Your task to perform on an android device: manage bookmarks in the chrome app Image 0: 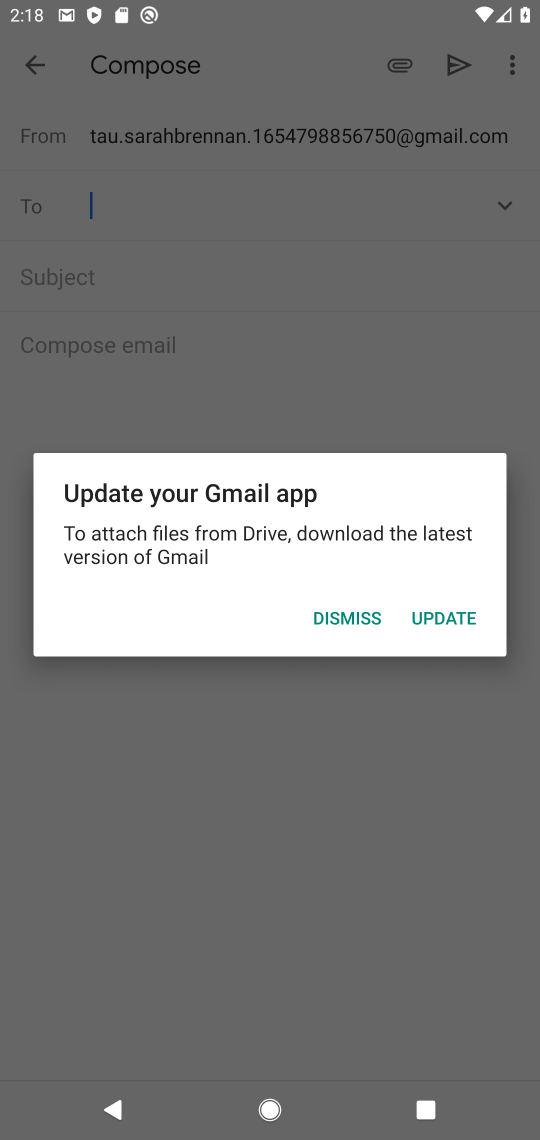
Step 0: press home button
Your task to perform on an android device: manage bookmarks in the chrome app Image 1: 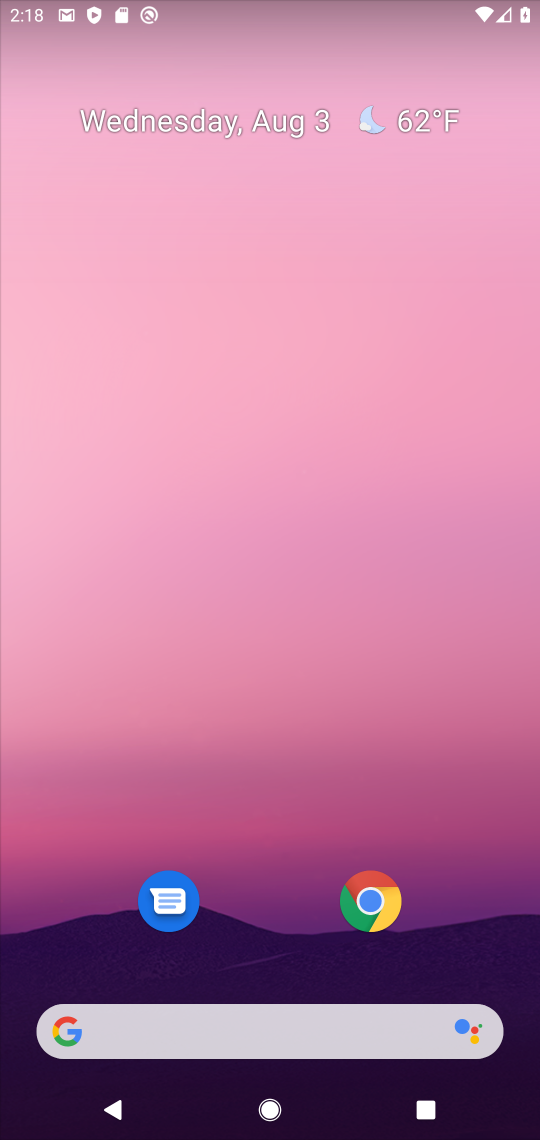
Step 1: click (362, 896)
Your task to perform on an android device: manage bookmarks in the chrome app Image 2: 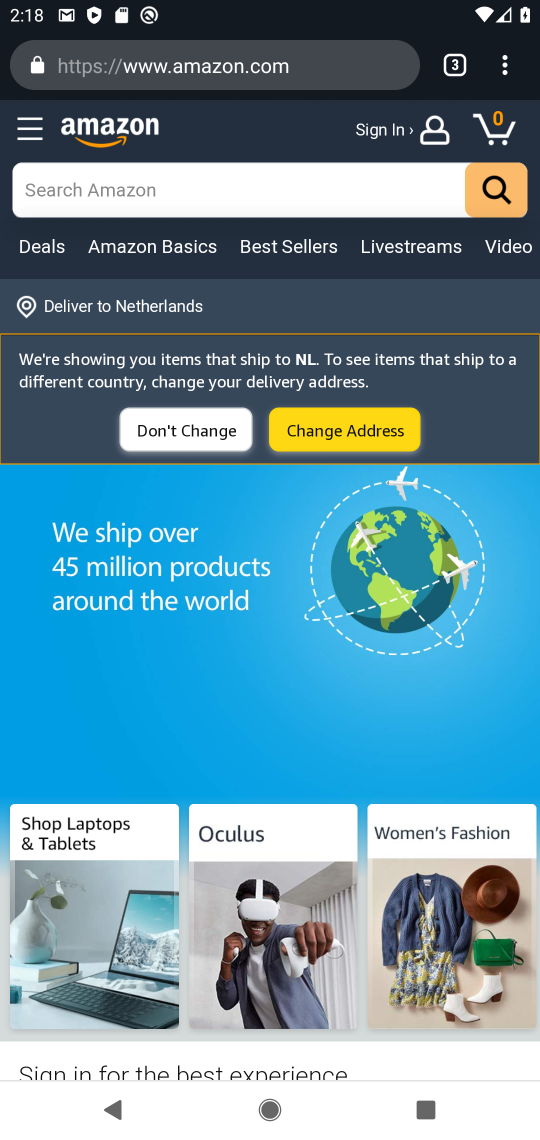
Step 2: click (506, 68)
Your task to perform on an android device: manage bookmarks in the chrome app Image 3: 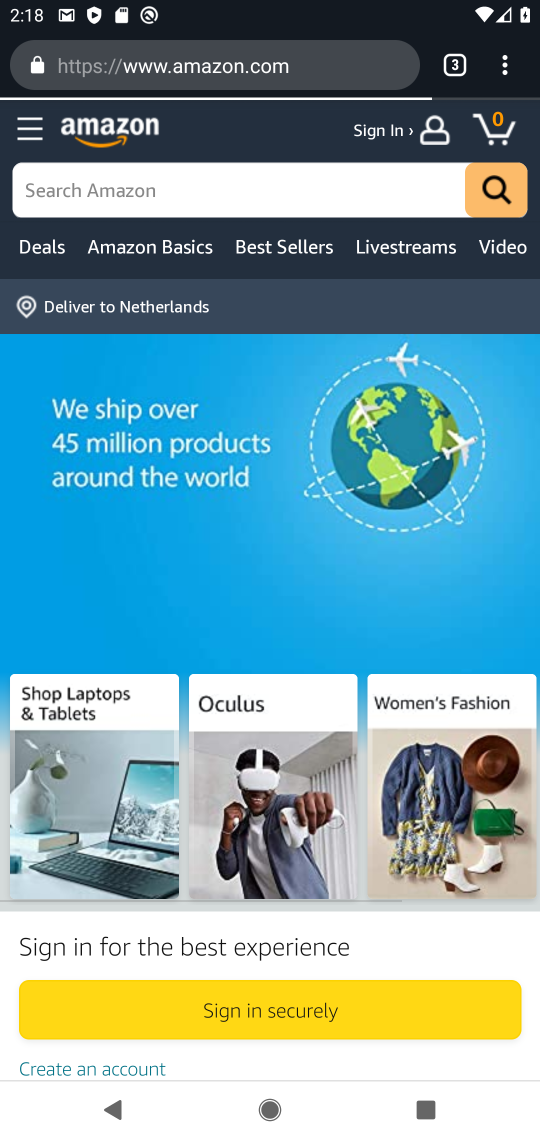
Step 3: click (512, 67)
Your task to perform on an android device: manage bookmarks in the chrome app Image 4: 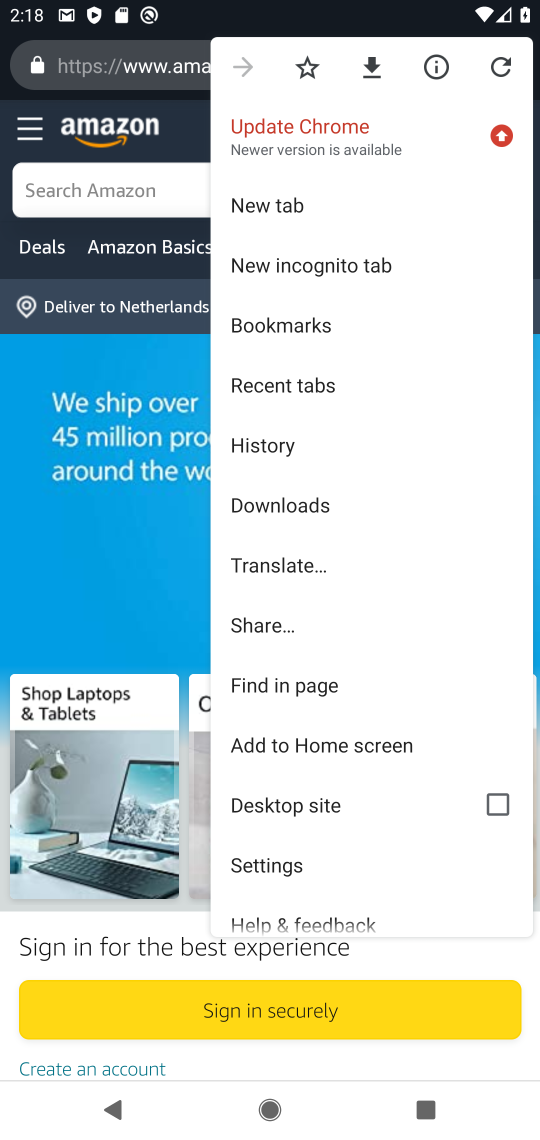
Step 4: click (302, 326)
Your task to perform on an android device: manage bookmarks in the chrome app Image 5: 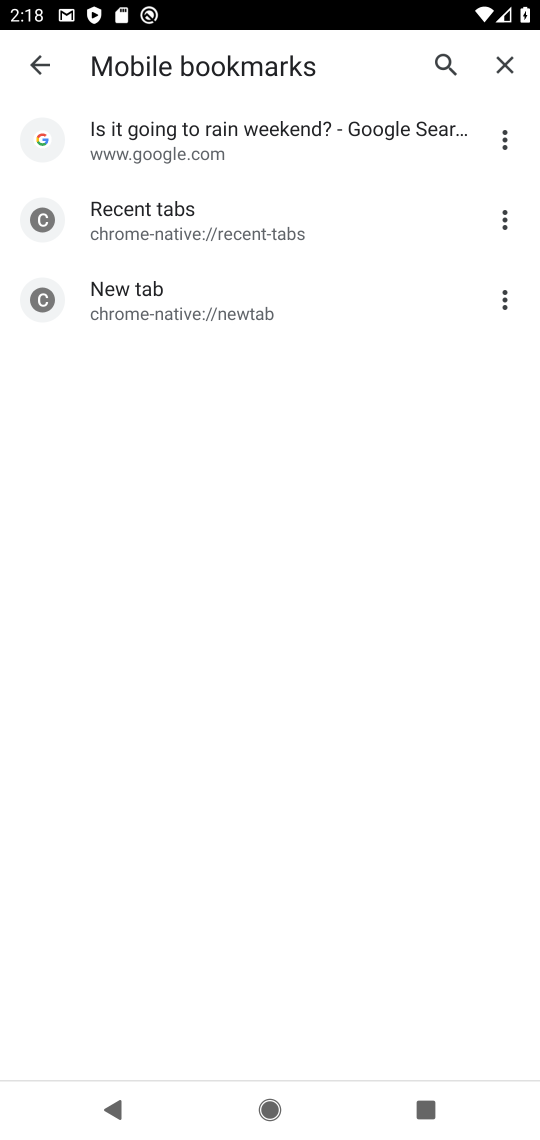
Step 5: click (140, 139)
Your task to perform on an android device: manage bookmarks in the chrome app Image 6: 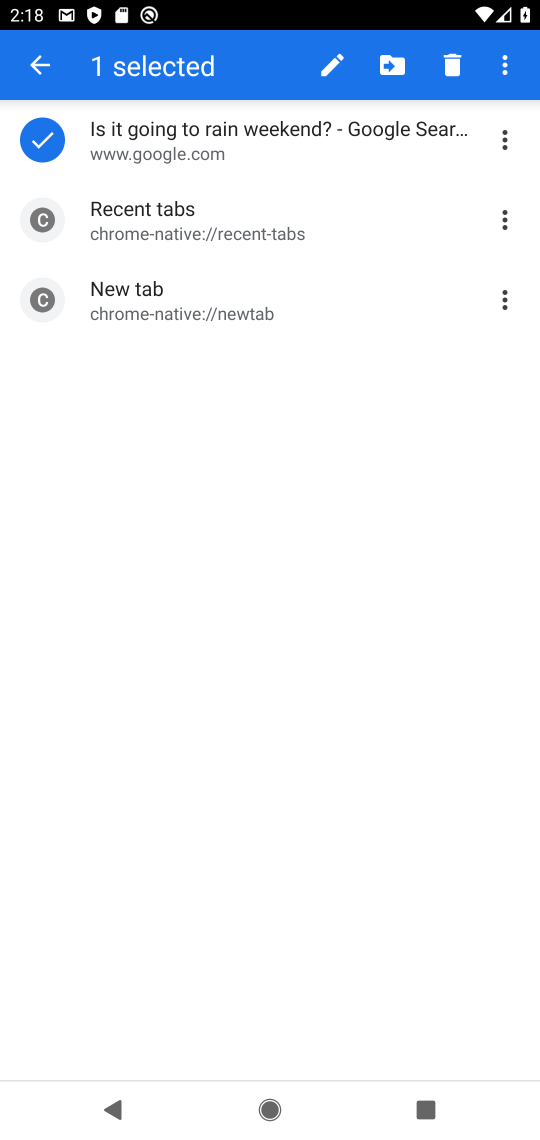
Step 6: click (108, 262)
Your task to perform on an android device: manage bookmarks in the chrome app Image 7: 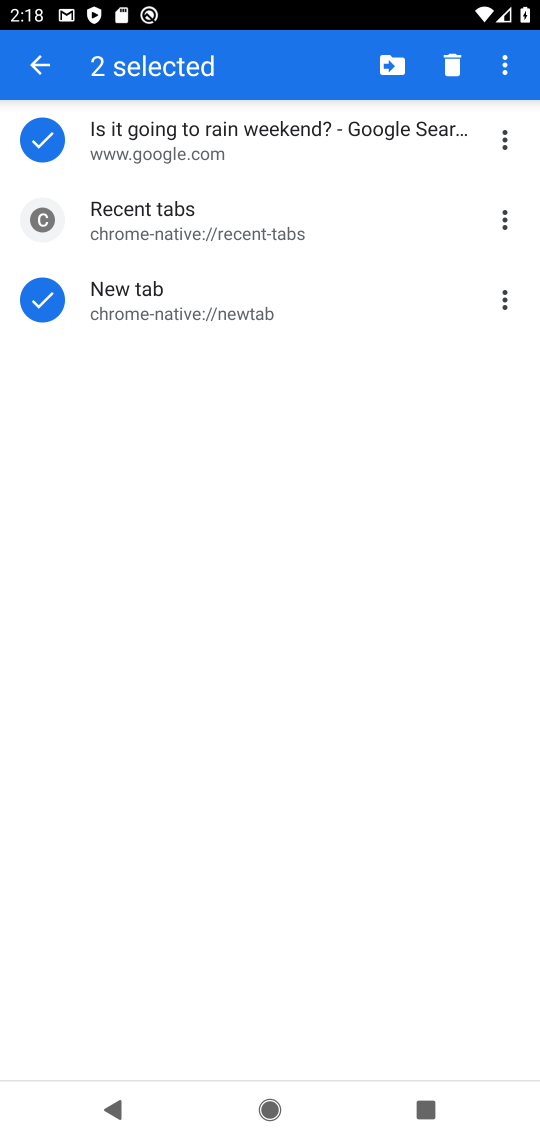
Step 7: click (96, 326)
Your task to perform on an android device: manage bookmarks in the chrome app Image 8: 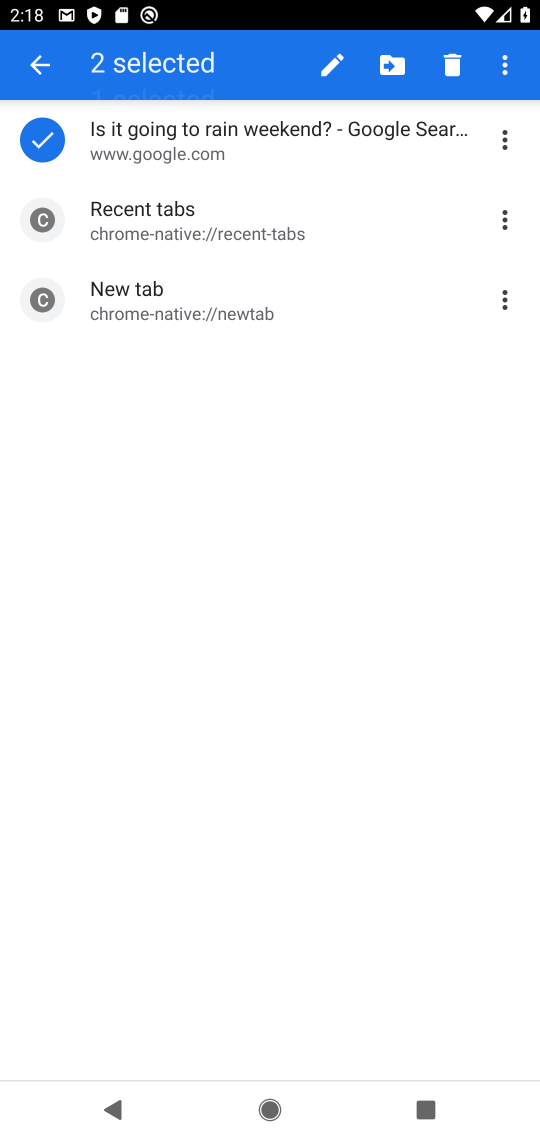
Step 8: click (117, 187)
Your task to perform on an android device: manage bookmarks in the chrome app Image 9: 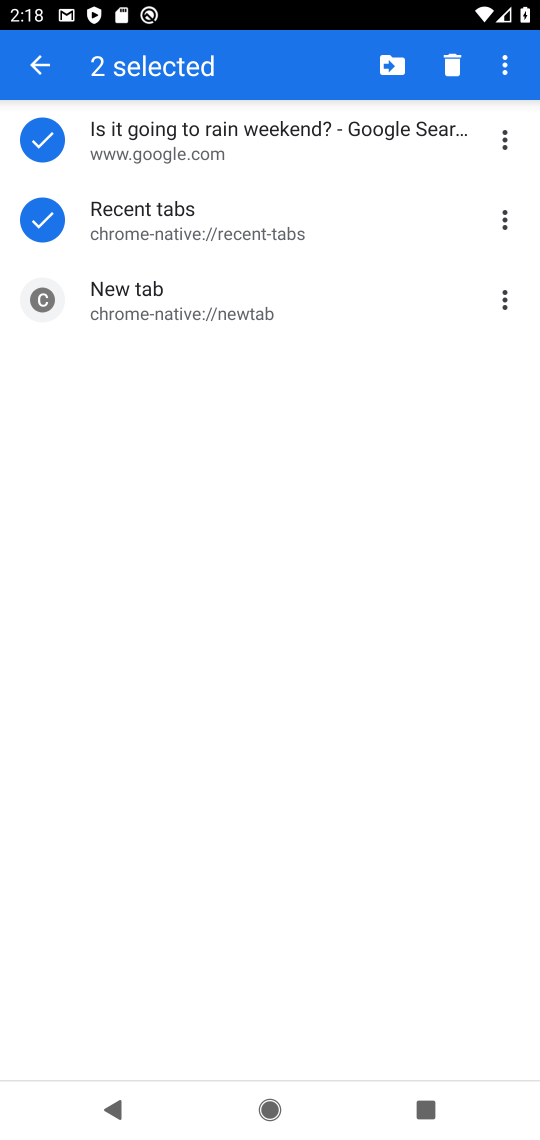
Step 9: click (76, 302)
Your task to perform on an android device: manage bookmarks in the chrome app Image 10: 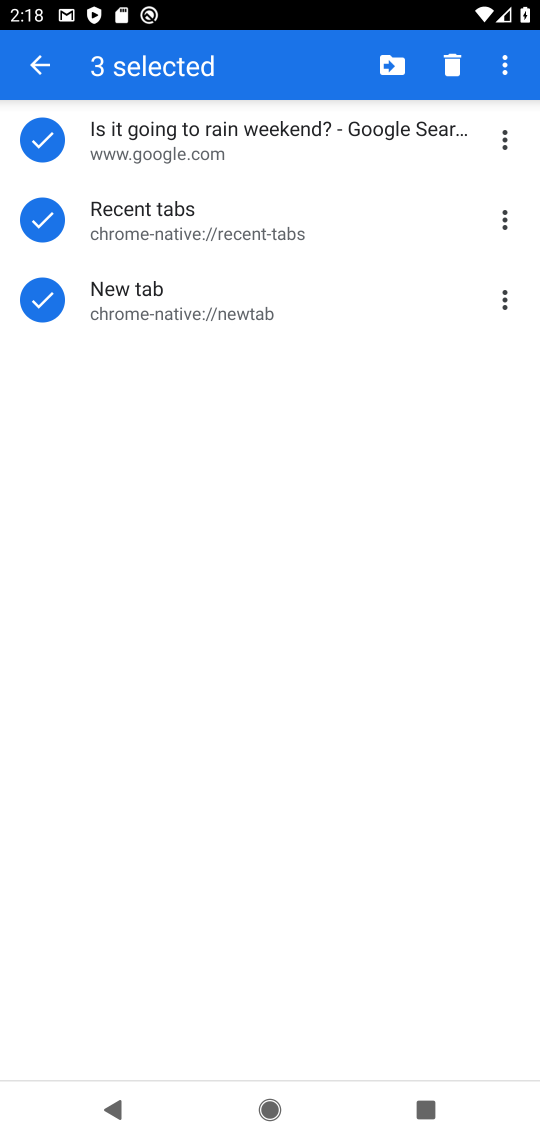
Step 10: click (401, 46)
Your task to perform on an android device: manage bookmarks in the chrome app Image 11: 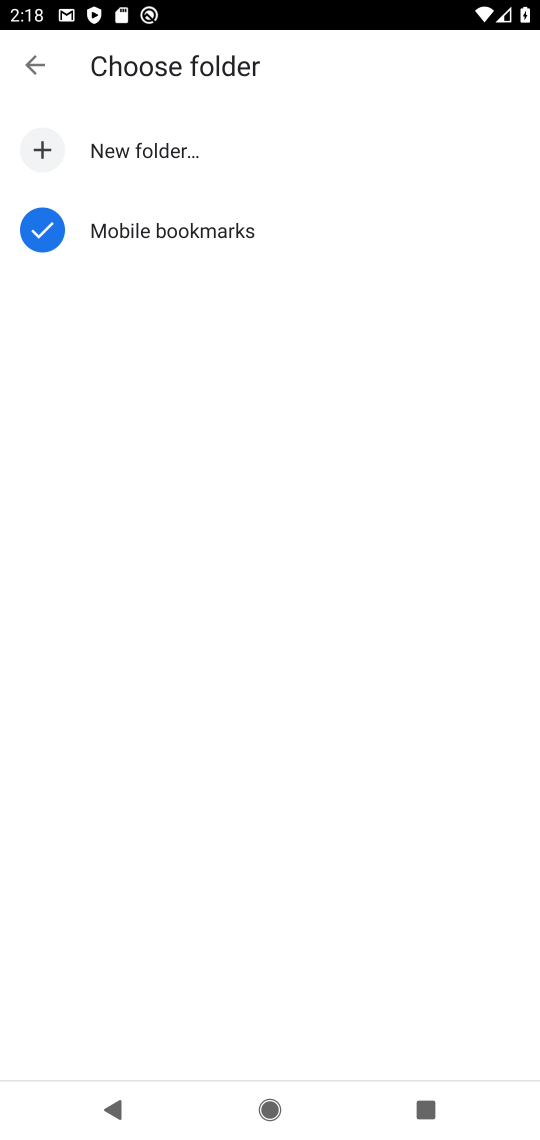
Step 11: click (123, 154)
Your task to perform on an android device: manage bookmarks in the chrome app Image 12: 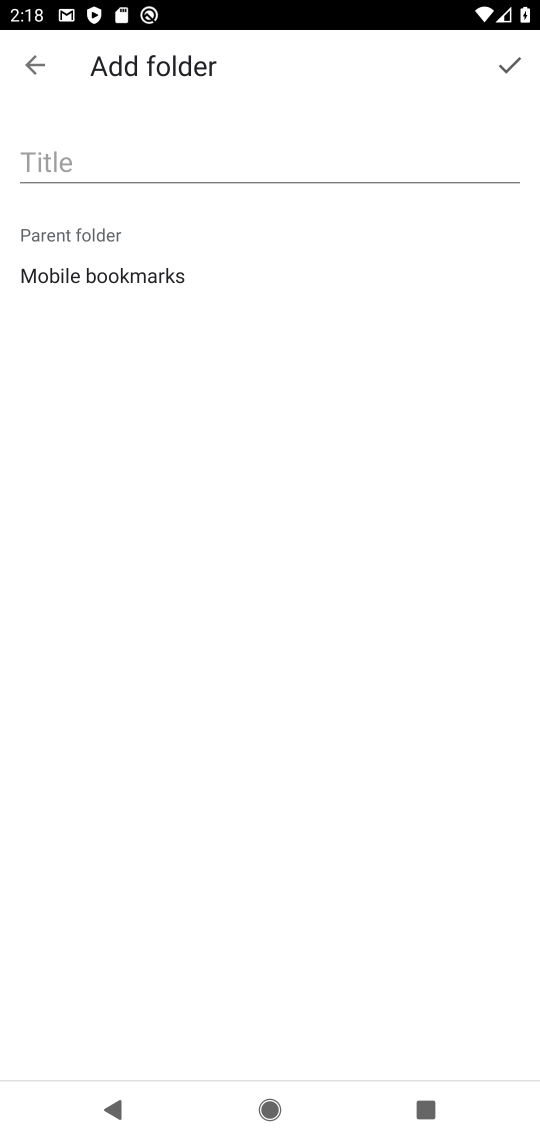
Step 12: click (147, 138)
Your task to perform on an android device: manage bookmarks in the chrome app Image 13: 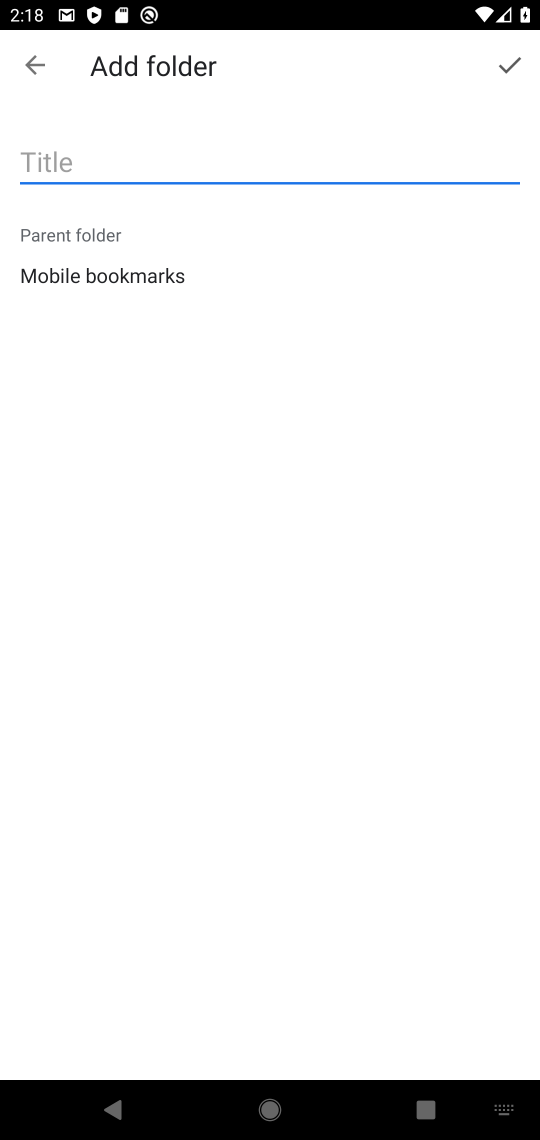
Step 13: type "ttttttttttsts "
Your task to perform on an android device: manage bookmarks in the chrome app Image 14: 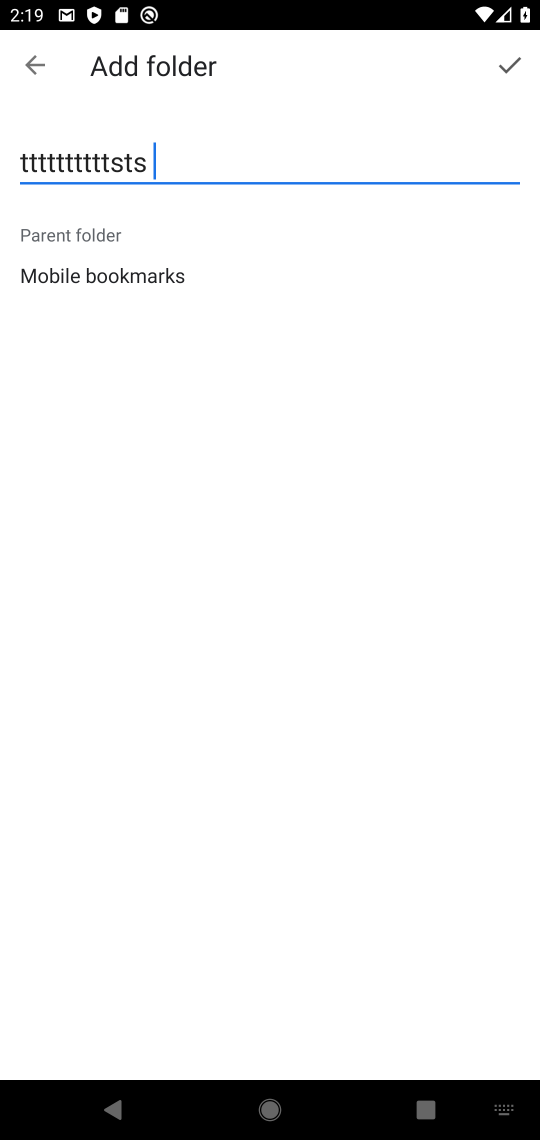
Step 14: click (531, 60)
Your task to perform on an android device: manage bookmarks in the chrome app Image 15: 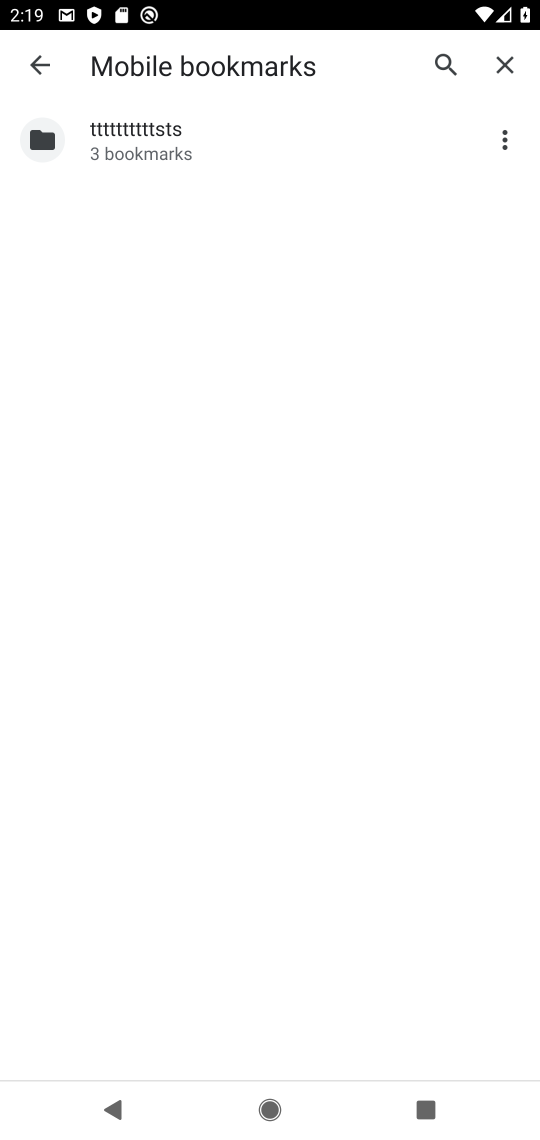
Step 15: task complete